Your task to perform on an android device: change notifications settings Image 0: 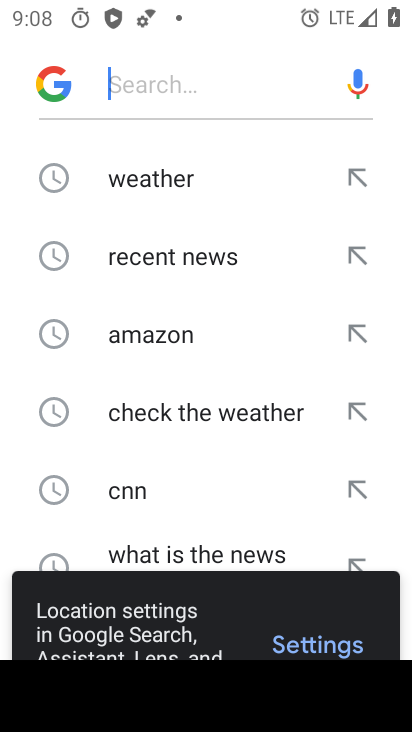
Step 0: press home button
Your task to perform on an android device: change notifications settings Image 1: 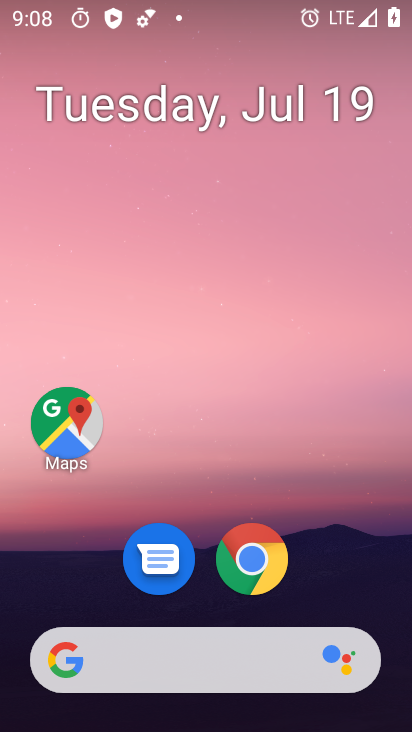
Step 1: drag from (382, 589) to (324, 122)
Your task to perform on an android device: change notifications settings Image 2: 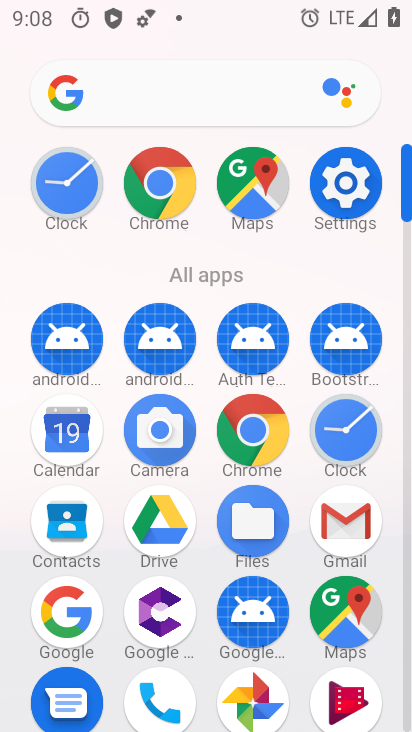
Step 2: click (363, 183)
Your task to perform on an android device: change notifications settings Image 3: 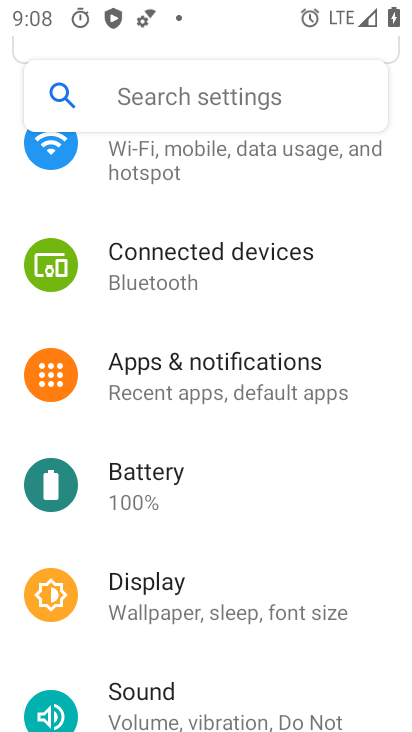
Step 3: click (230, 392)
Your task to perform on an android device: change notifications settings Image 4: 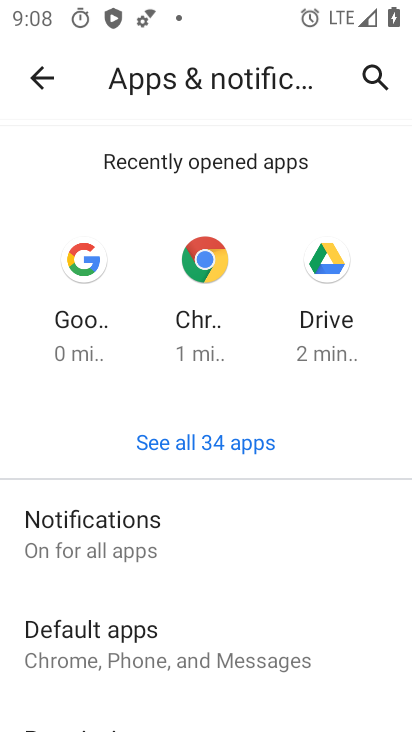
Step 4: click (231, 556)
Your task to perform on an android device: change notifications settings Image 5: 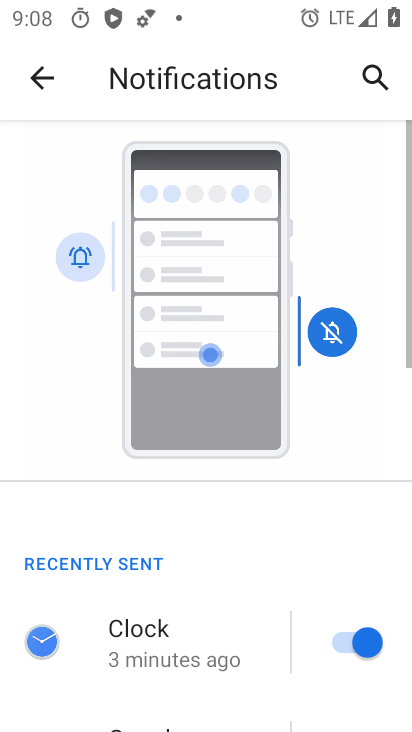
Step 5: drag from (250, 652) to (242, 207)
Your task to perform on an android device: change notifications settings Image 6: 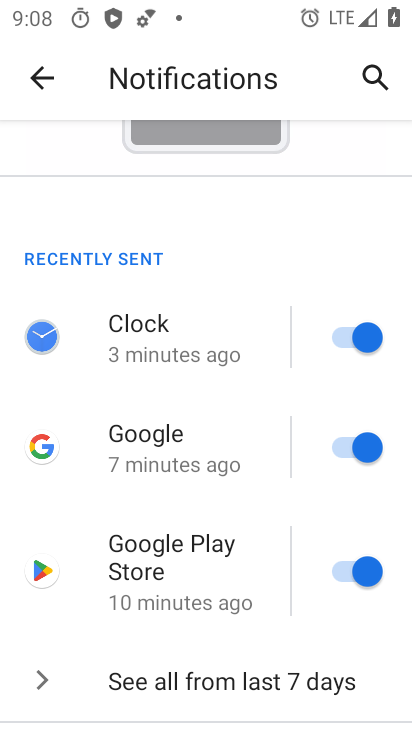
Step 6: drag from (290, 645) to (264, 235)
Your task to perform on an android device: change notifications settings Image 7: 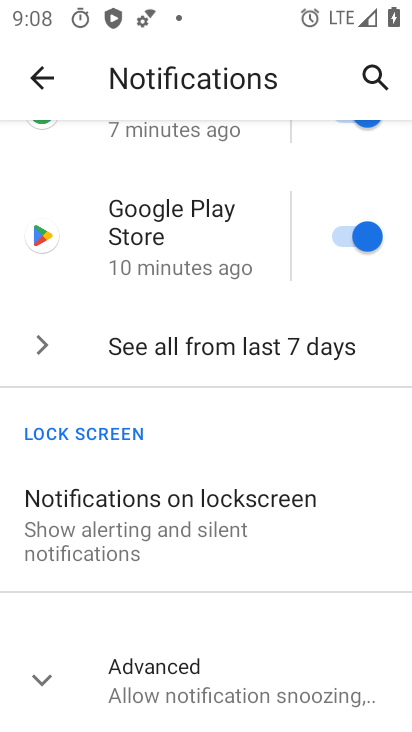
Step 7: drag from (282, 583) to (271, 241)
Your task to perform on an android device: change notifications settings Image 8: 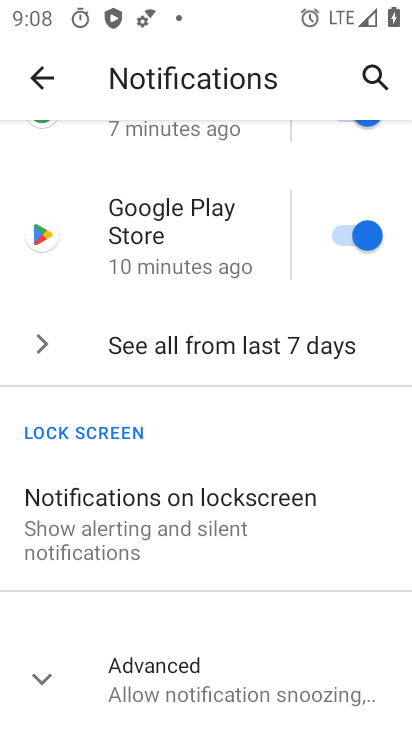
Step 8: click (242, 662)
Your task to perform on an android device: change notifications settings Image 9: 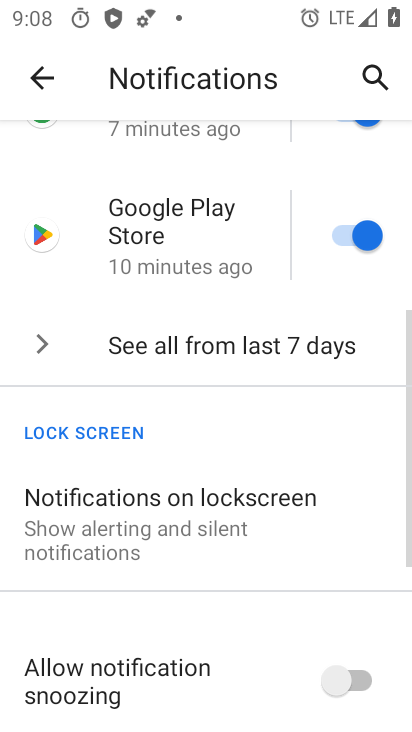
Step 9: drag from (250, 609) to (252, 187)
Your task to perform on an android device: change notifications settings Image 10: 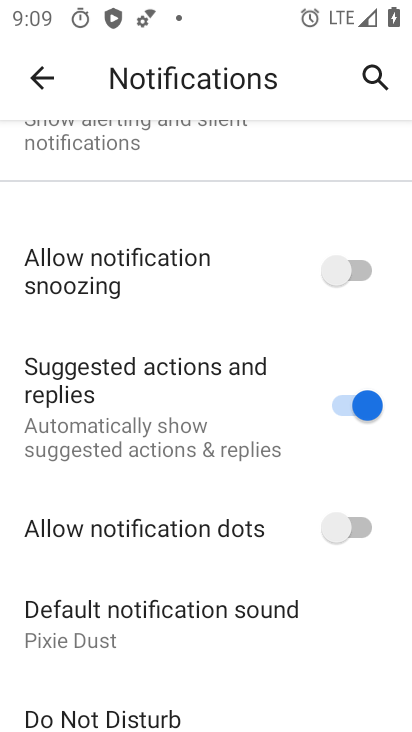
Step 10: click (357, 287)
Your task to perform on an android device: change notifications settings Image 11: 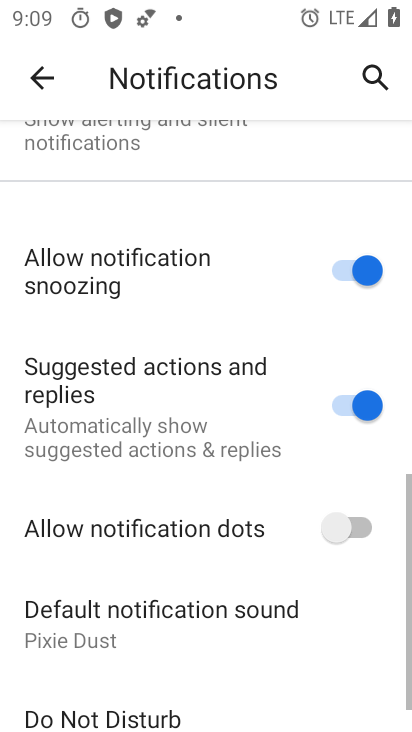
Step 11: click (356, 392)
Your task to perform on an android device: change notifications settings Image 12: 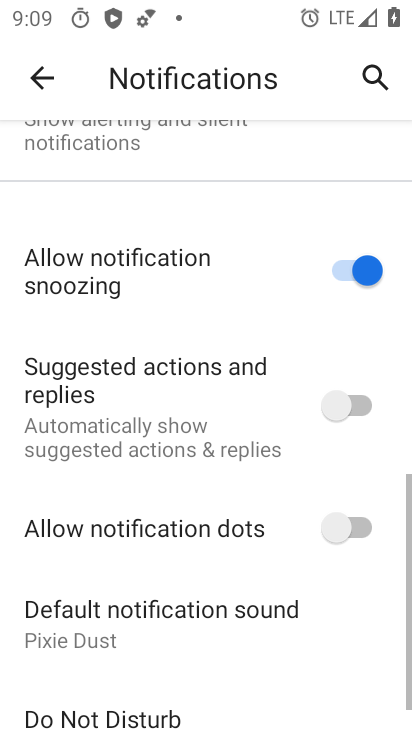
Step 12: click (356, 514)
Your task to perform on an android device: change notifications settings Image 13: 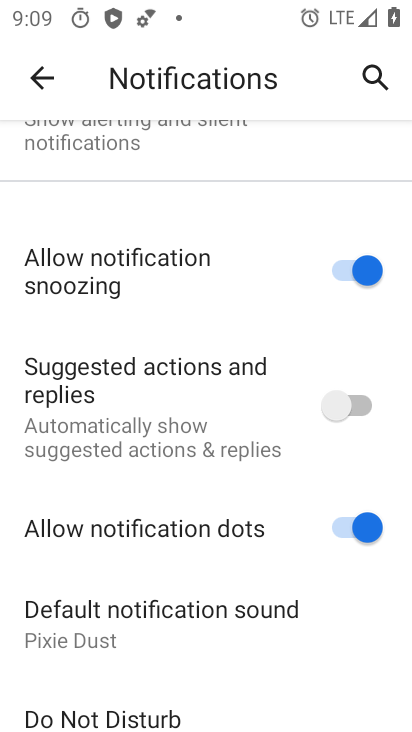
Step 13: task complete